Your task to perform on an android device: check storage Image 0: 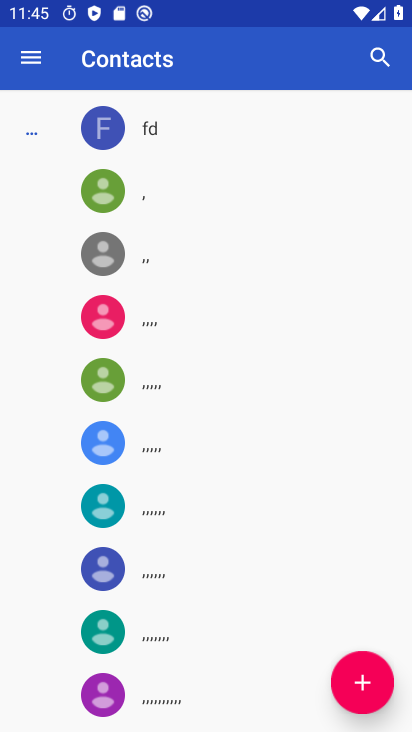
Step 0: press home button
Your task to perform on an android device: check storage Image 1: 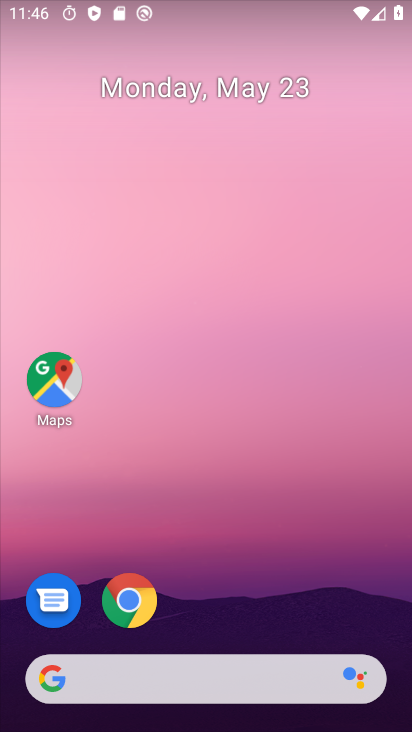
Step 1: drag from (254, 590) to (268, 224)
Your task to perform on an android device: check storage Image 2: 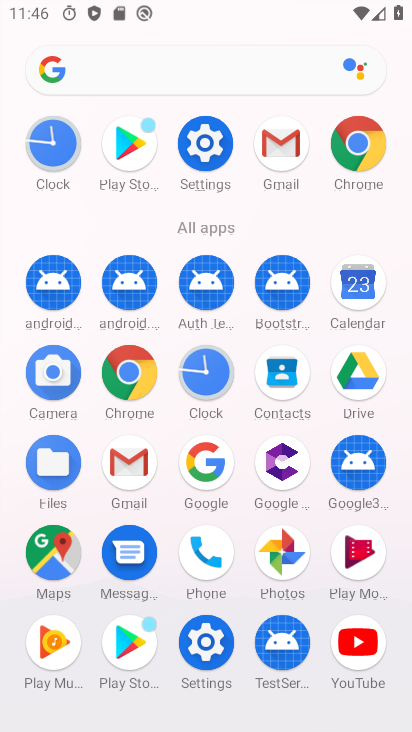
Step 2: click (203, 146)
Your task to perform on an android device: check storage Image 3: 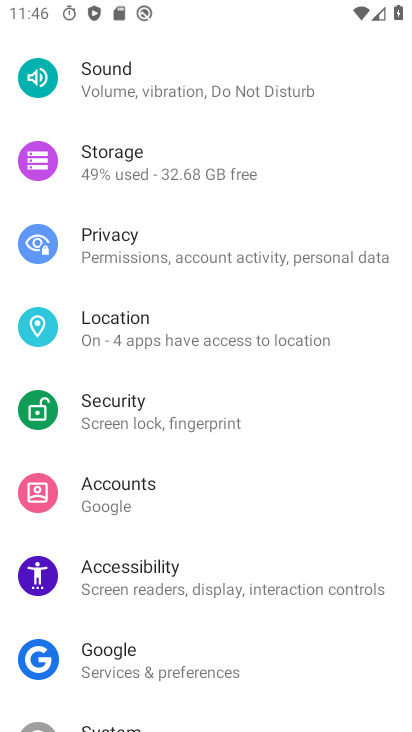
Step 3: click (79, 166)
Your task to perform on an android device: check storage Image 4: 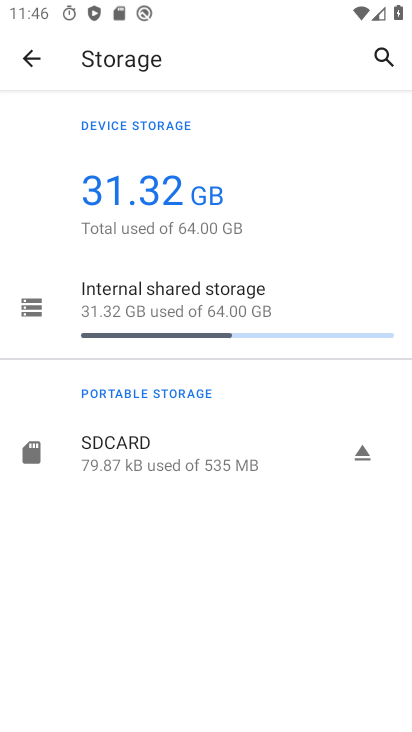
Step 4: task complete